Your task to perform on an android device: What is the recent news? Image 0: 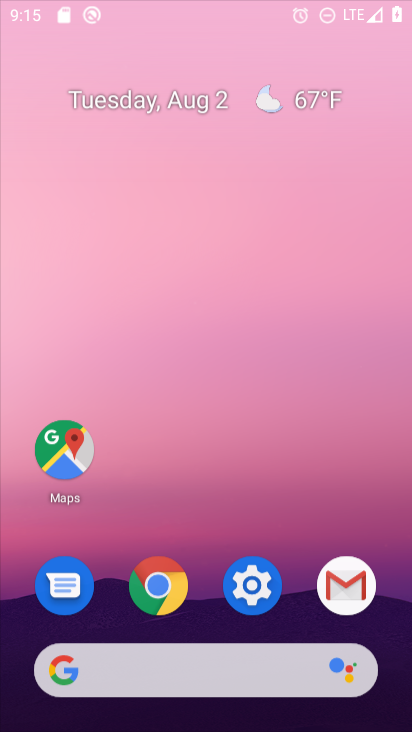
Step 0: press home button
Your task to perform on an android device: What is the recent news? Image 1: 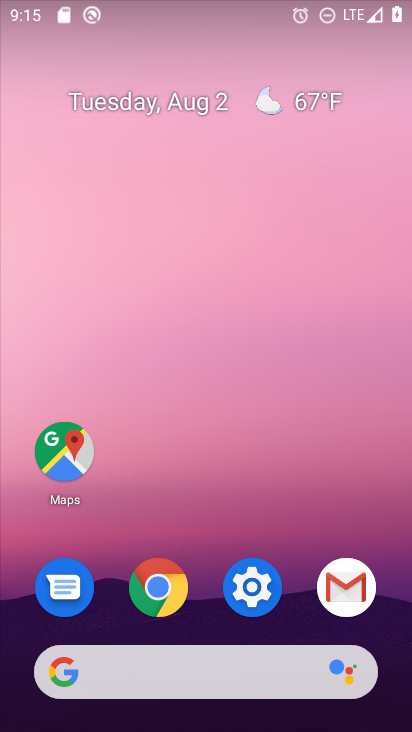
Step 1: click (207, 683)
Your task to perform on an android device: What is the recent news? Image 2: 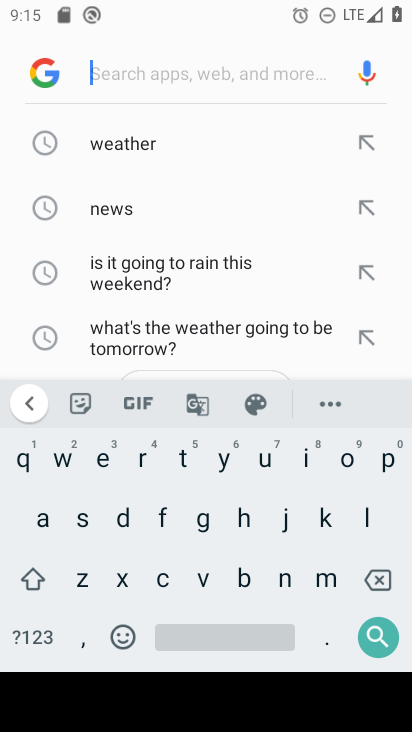
Step 2: click (131, 461)
Your task to perform on an android device: What is the recent news? Image 3: 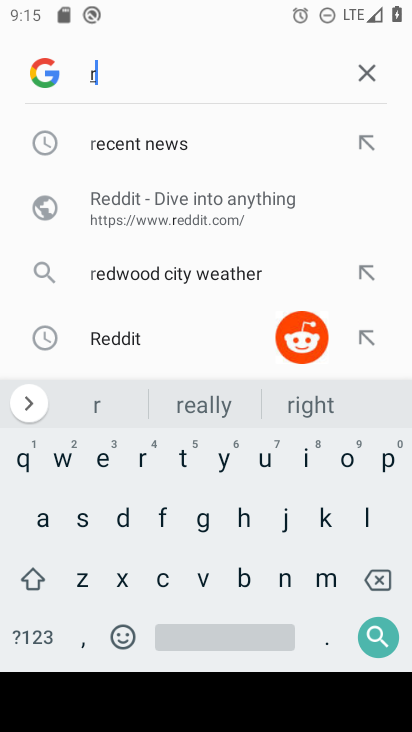
Step 3: click (100, 459)
Your task to perform on an android device: What is the recent news? Image 4: 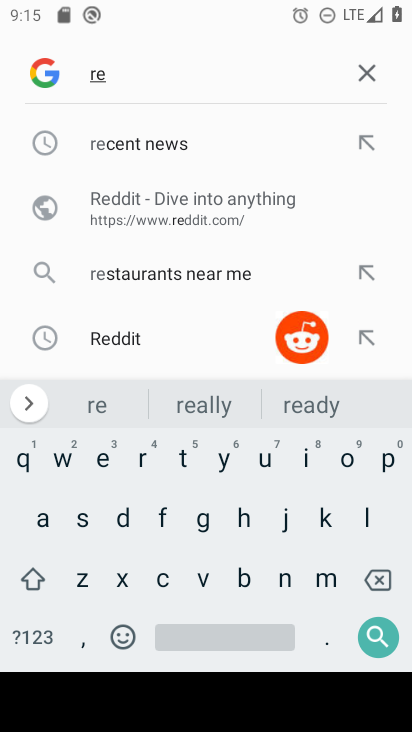
Step 4: click (129, 137)
Your task to perform on an android device: What is the recent news? Image 5: 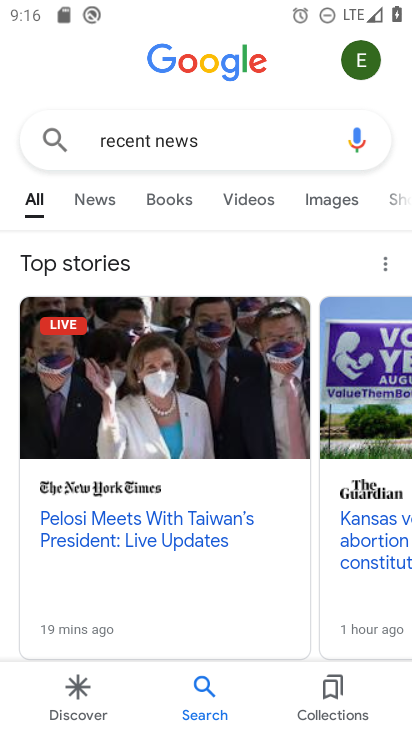
Step 5: task complete